Your task to perform on an android device: Open Chrome and go to the settings page Image 0: 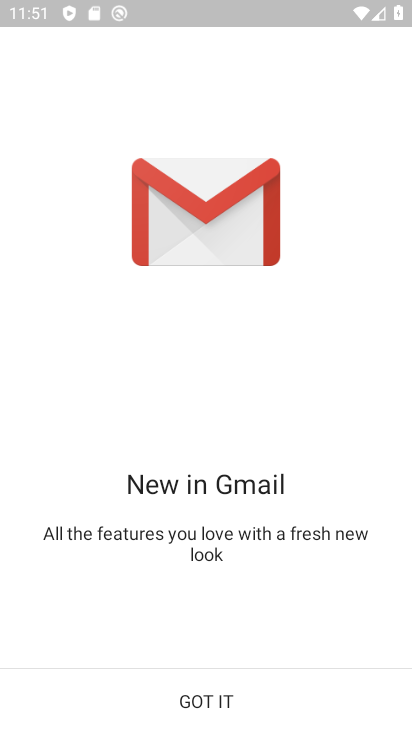
Step 0: press home button
Your task to perform on an android device: Open Chrome and go to the settings page Image 1: 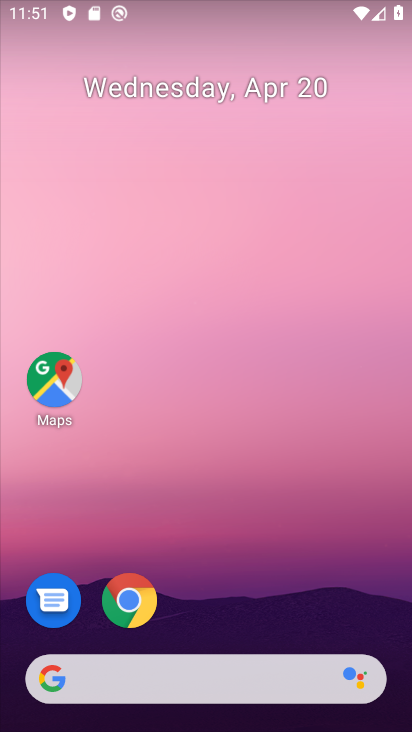
Step 1: drag from (188, 645) to (54, 500)
Your task to perform on an android device: Open Chrome and go to the settings page Image 2: 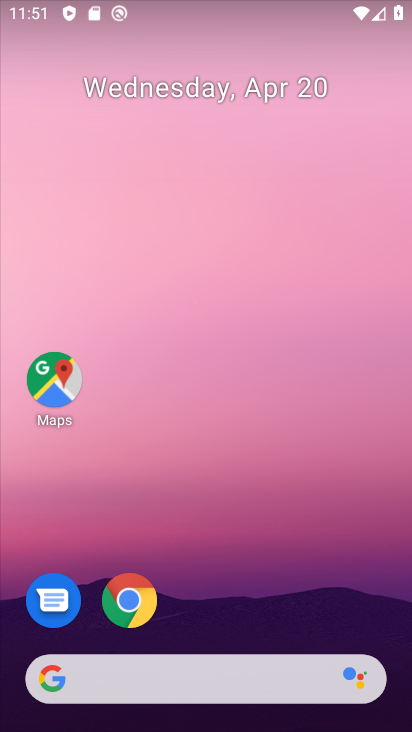
Step 2: drag from (216, 629) to (217, 6)
Your task to perform on an android device: Open Chrome and go to the settings page Image 3: 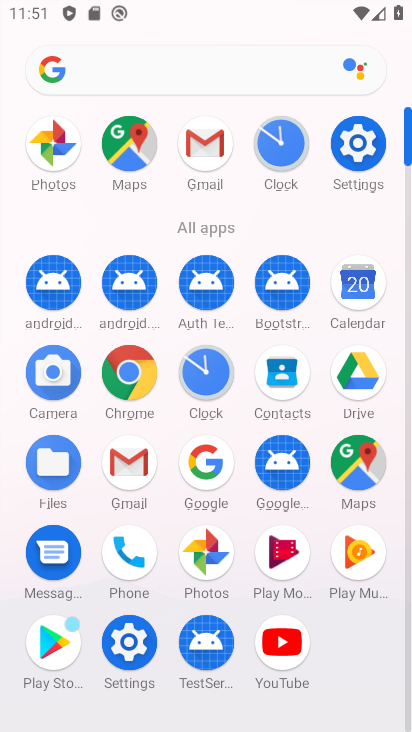
Step 3: click (132, 366)
Your task to perform on an android device: Open Chrome and go to the settings page Image 4: 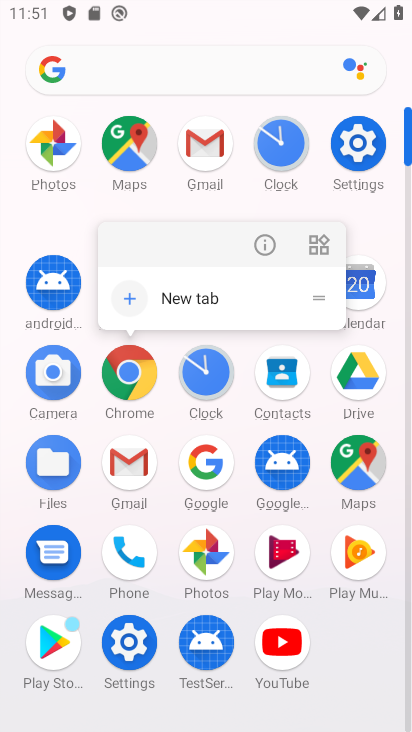
Step 4: click (132, 366)
Your task to perform on an android device: Open Chrome and go to the settings page Image 5: 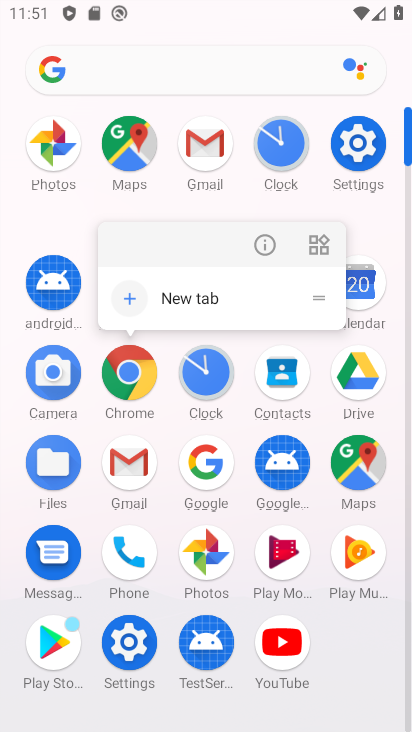
Step 5: click (125, 385)
Your task to perform on an android device: Open Chrome and go to the settings page Image 6: 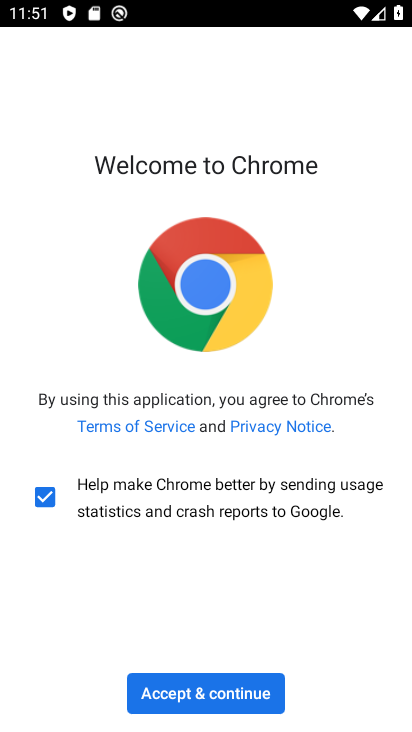
Step 6: click (184, 686)
Your task to perform on an android device: Open Chrome and go to the settings page Image 7: 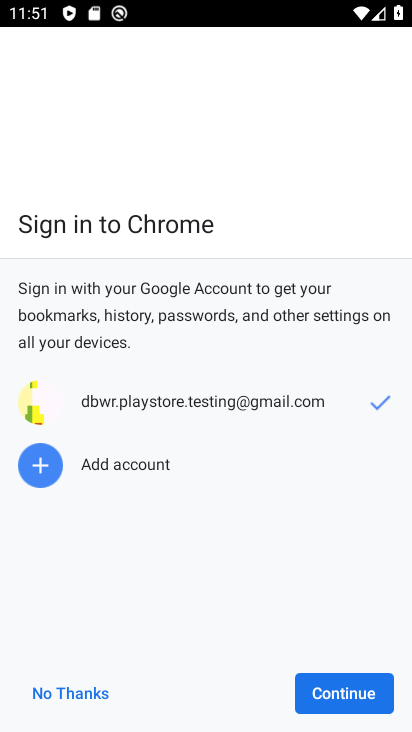
Step 7: click (348, 678)
Your task to perform on an android device: Open Chrome and go to the settings page Image 8: 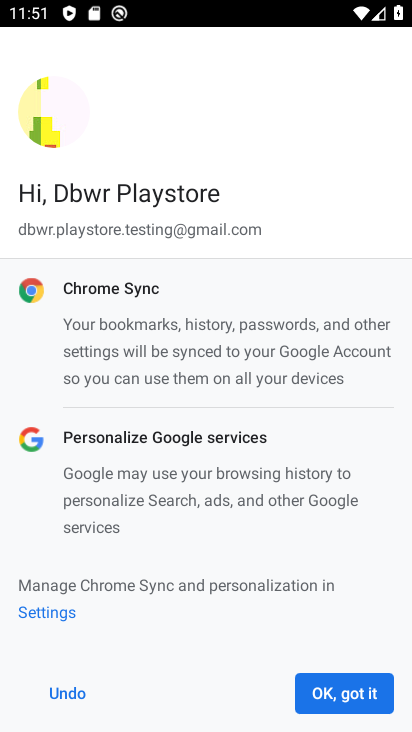
Step 8: click (346, 687)
Your task to perform on an android device: Open Chrome and go to the settings page Image 9: 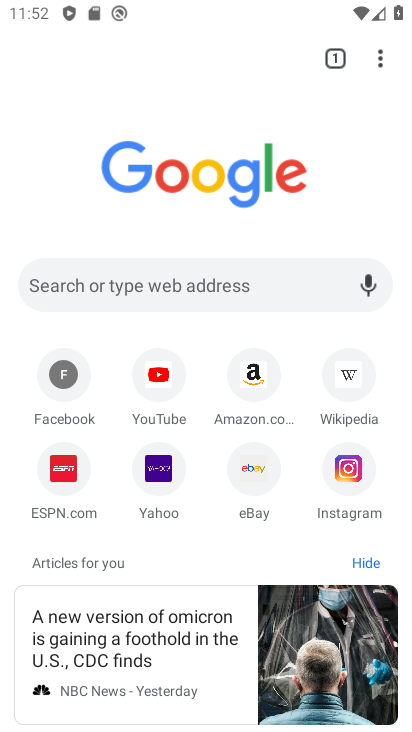
Step 9: click (376, 59)
Your task to perform on an android device: Open Chrome and go to the settings page Image 10: 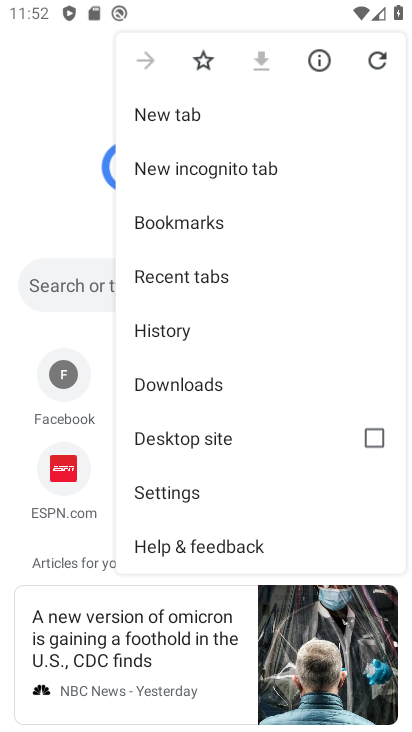
Step 10: click (178, 488)
Your task to perform on an android device: Open Chrome and go to the settings page Image 11: 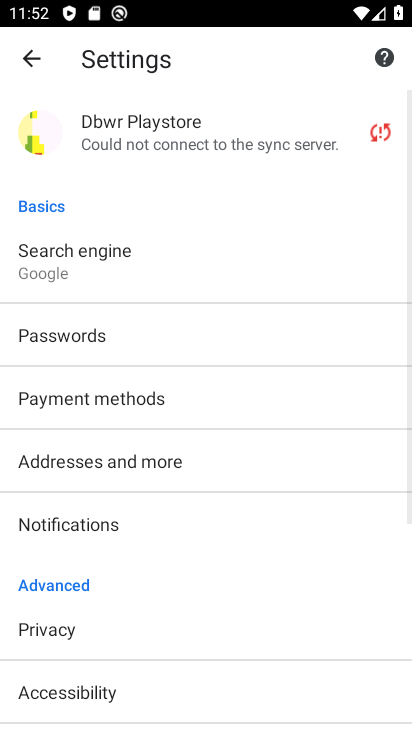
Step 11: task complete